Your task to perform on an android device: Go to location settings Image 0: 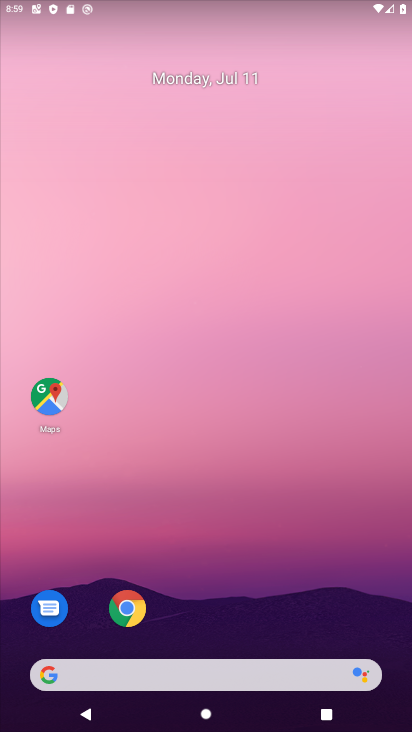
Step 0: drag from (194, 662) to (216, 239)
Your task to perform on an android device: Go to location settings Image 1: 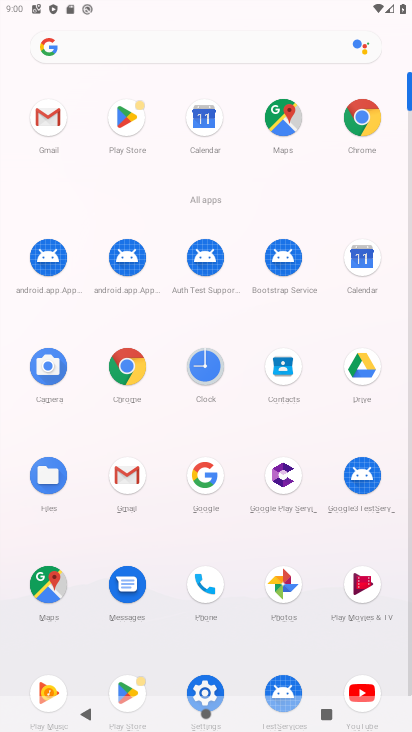
Step 1: click (199, 684)
Your task to perform on an android device: Go to location settings Image 2: 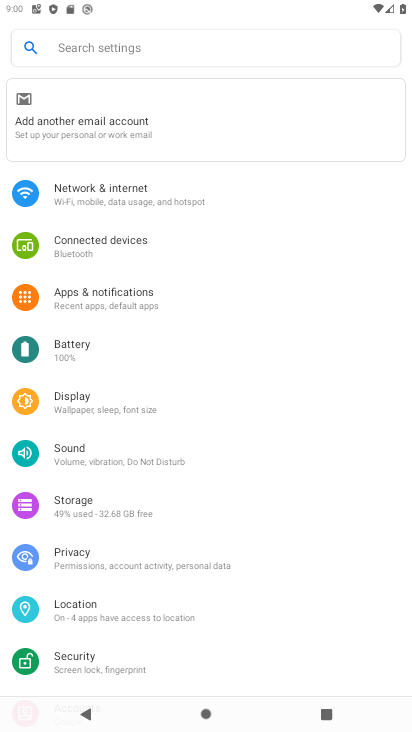
Step 2: click (90, 602)
Your task to perform on an android device: Go to location settings Image 3: 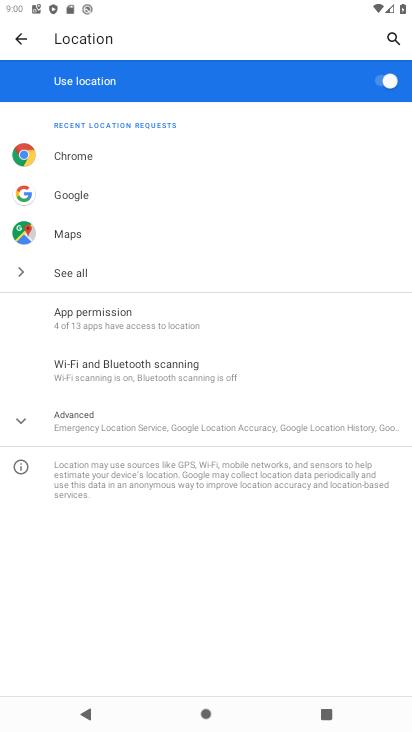
Step 3: task complete